Your task to perform on an android device: show emergency info Image 0: 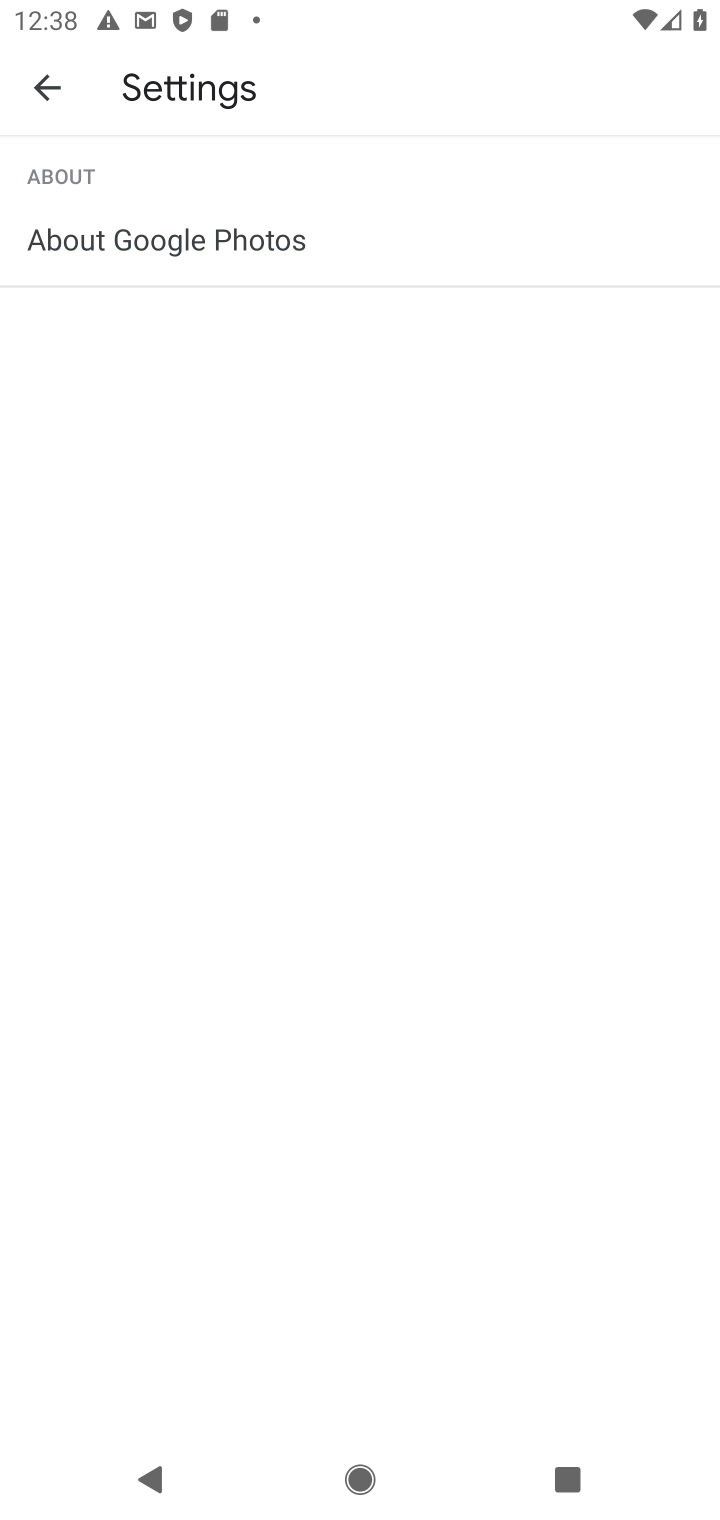
Step 0: press home button
Your task to perform on an android device: show emergency info Image 1: 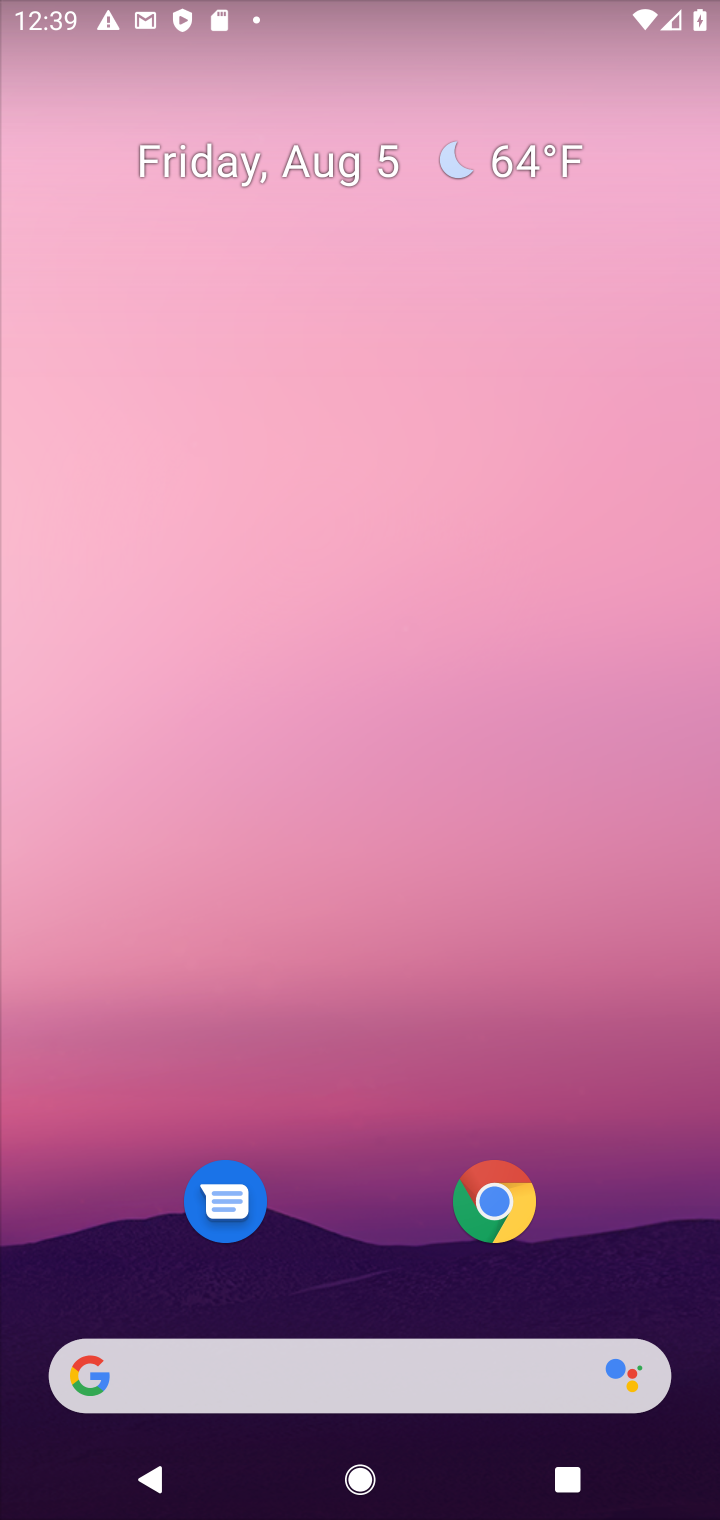
Step 1: drag from (643, 1177) to (673, 21)
Your task to perform on an android device: show emergency info Image 2: 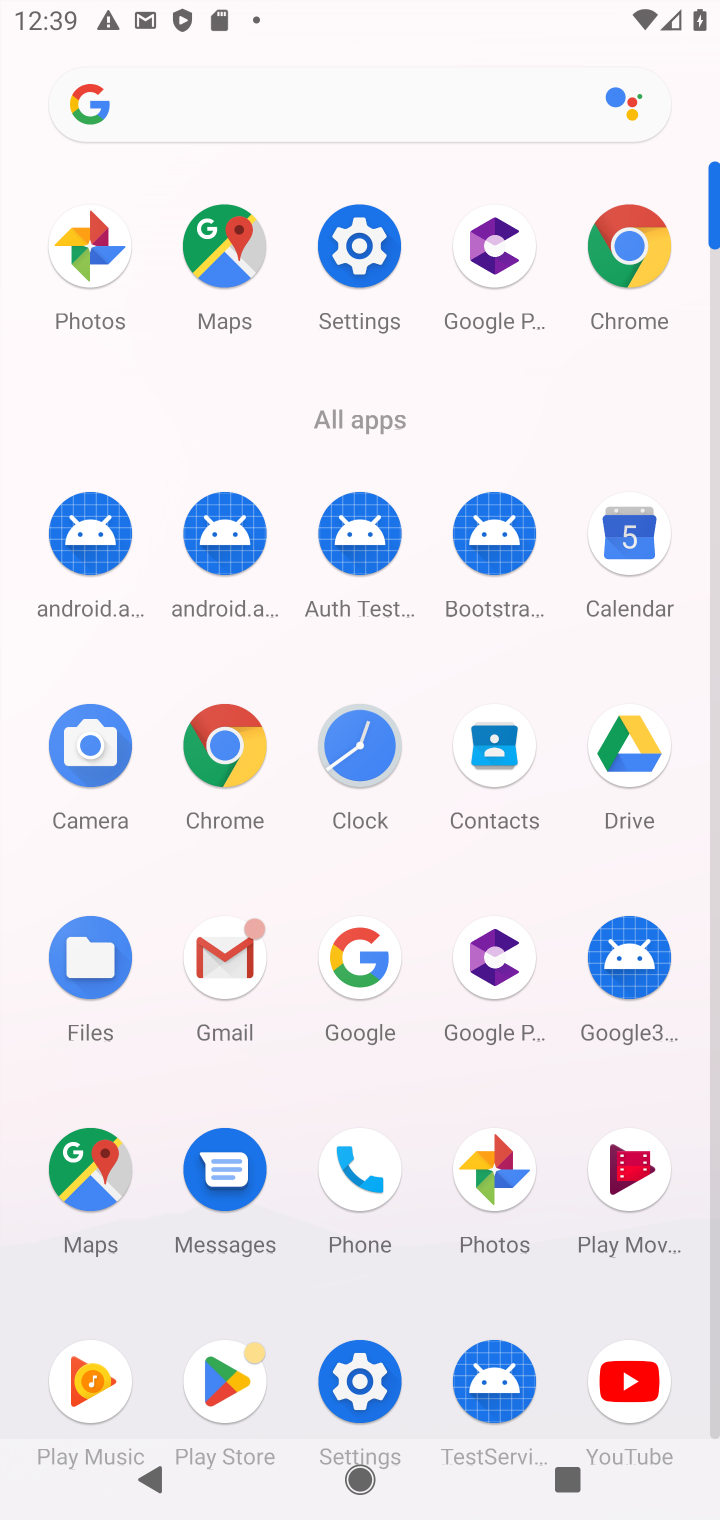
Step 2: click (367, 269)
Your task to perform on an android device: show emergency info Image 3: 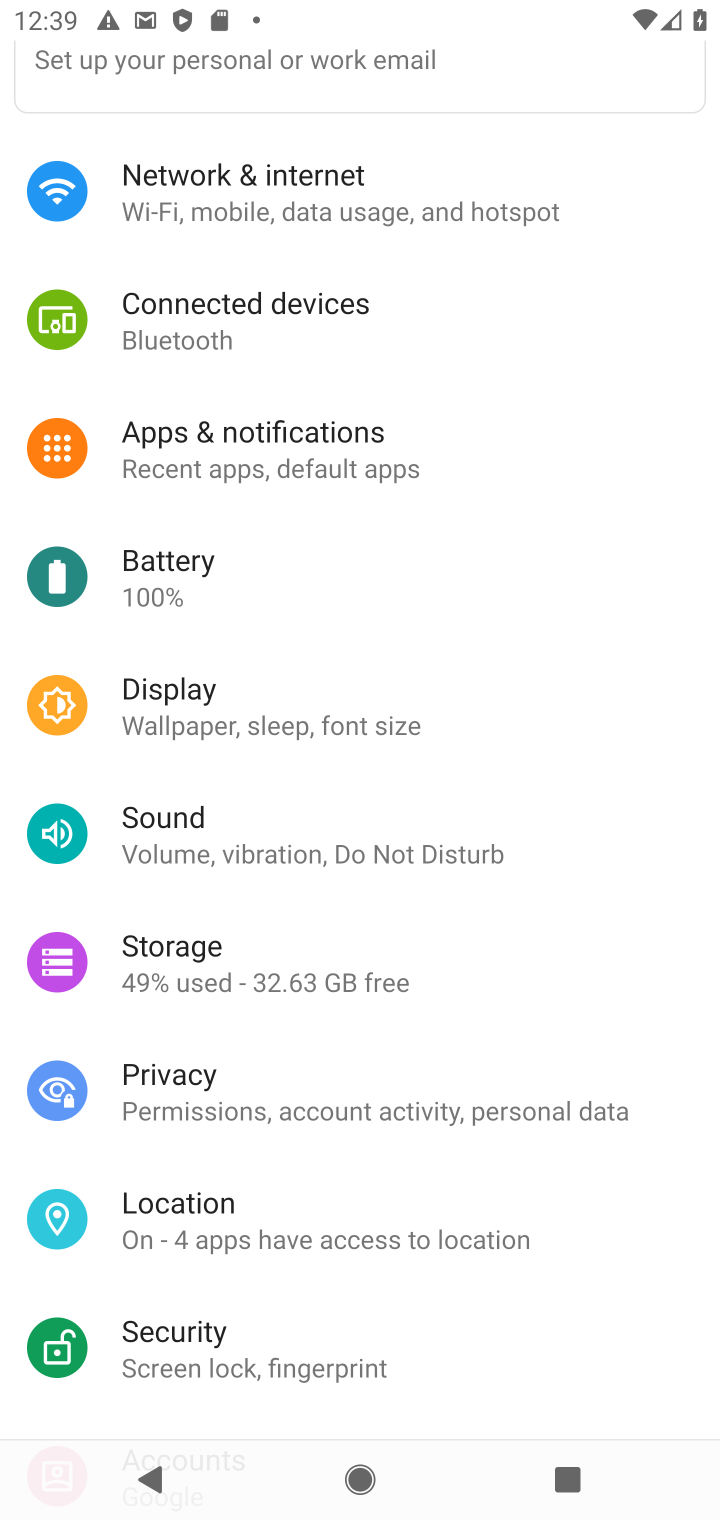
Step 3: drag from (485, 1243) to (544, 231)
Your task to perform on an android device: show emergency info Image 4: 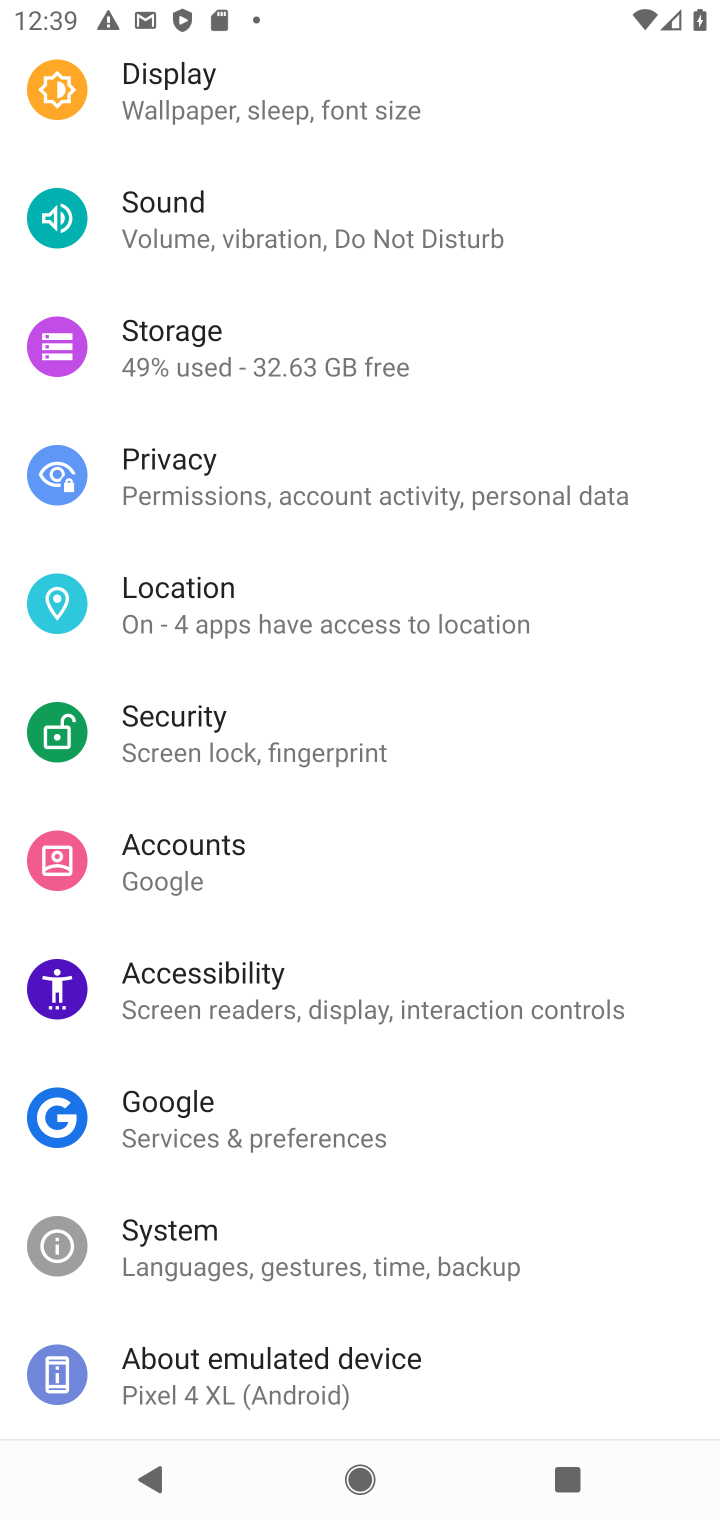
Step 4: click (297, 1363)
Your task to perform on an android device: show emergency info Image 5: 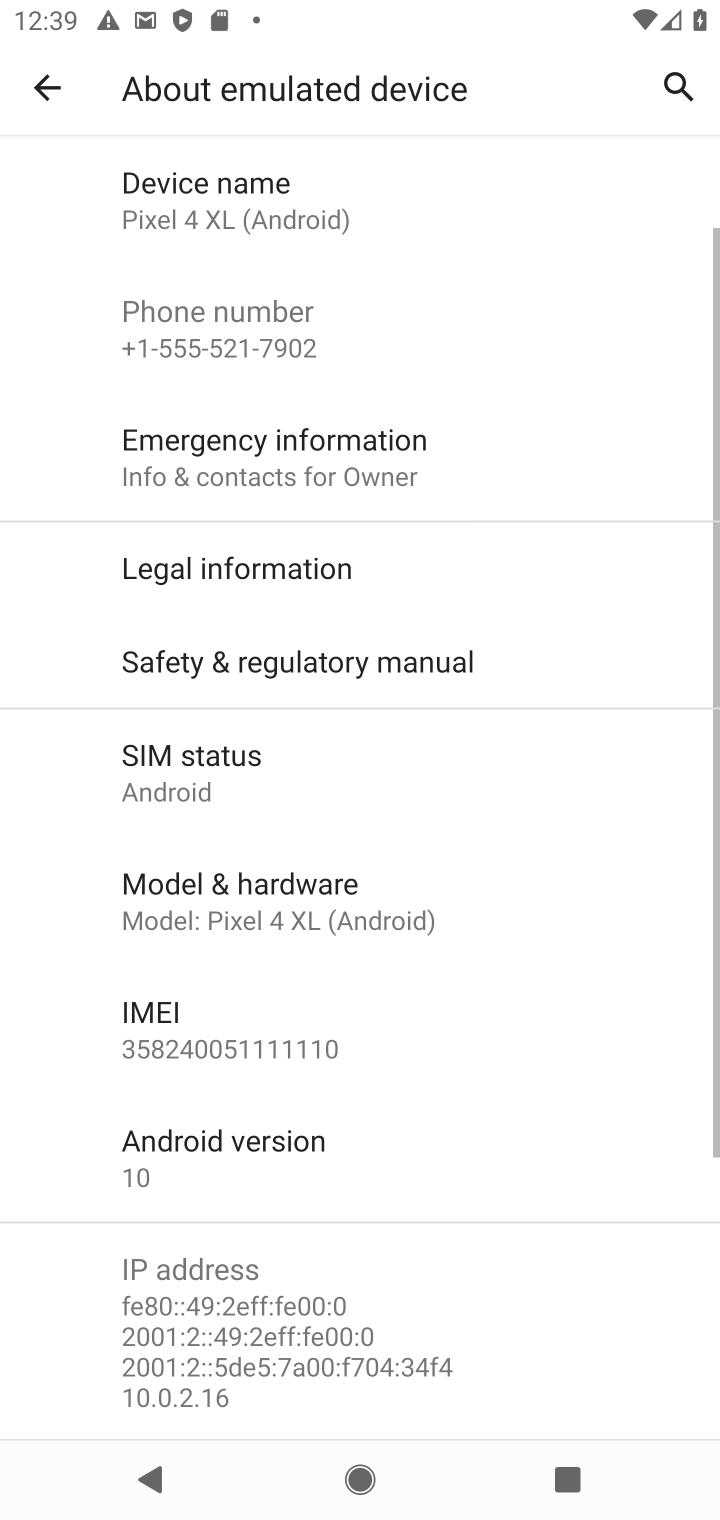
Step 5: click (353, 465)
Your task to perform on an android device: show emergency info Image 6: 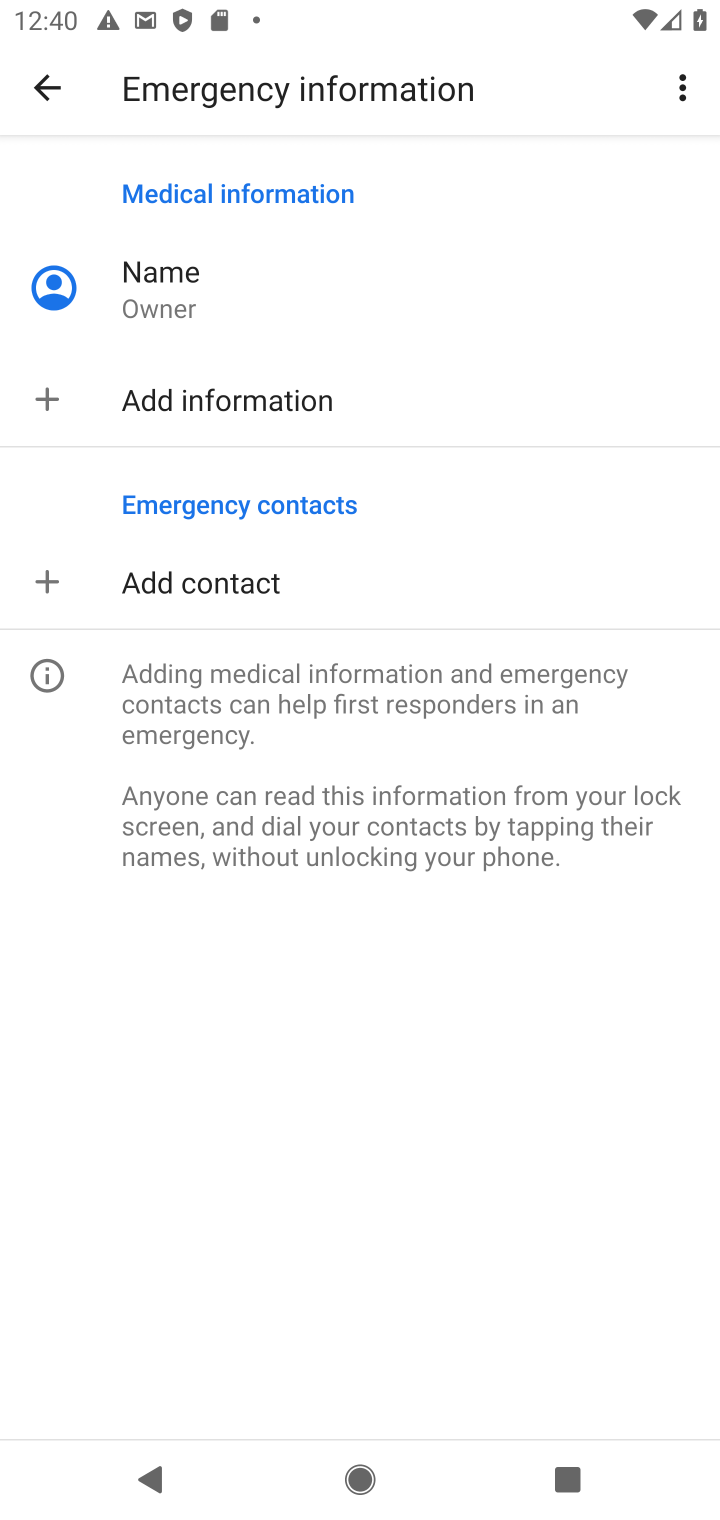
Step 6: task complete